Your task to perform on an android device: turn on javascript in the chrome app Image 0: 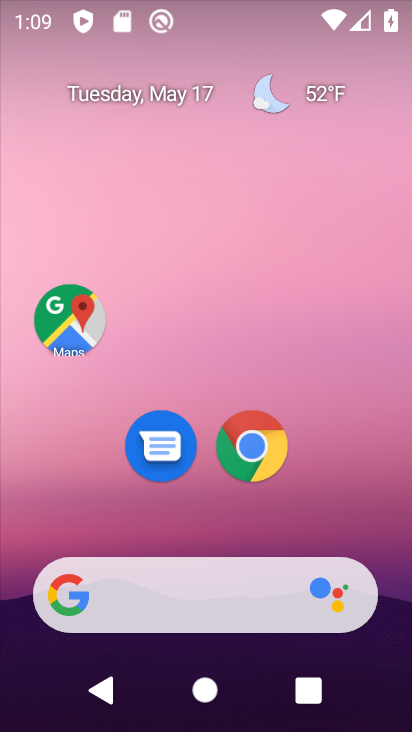
Step 0: drag from (379, 515) to (300, 151)
Your task to perform on an android device: turn on javascript in the chrome app Image 1: 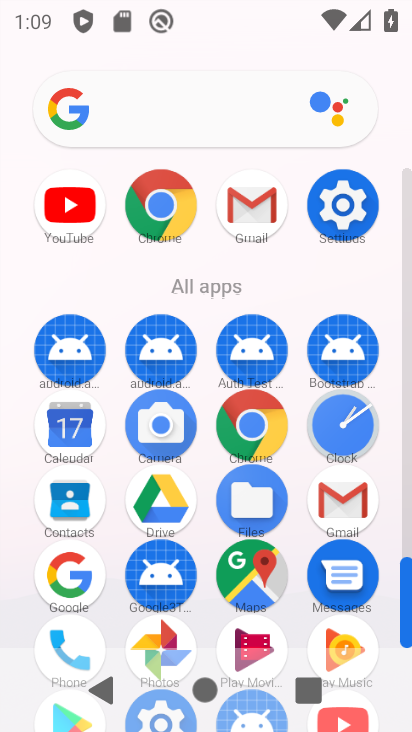
Step 1: click (170, 204)
Your task to perform on an android device: turn on javascript in the chrome app Image 2: 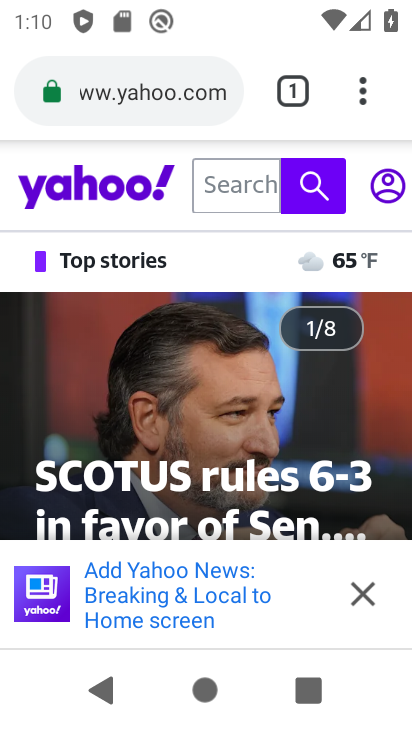
Step 2: click (369, 106)
Your task to perform on an android device: turn on javascript in the chrome app Image 3: 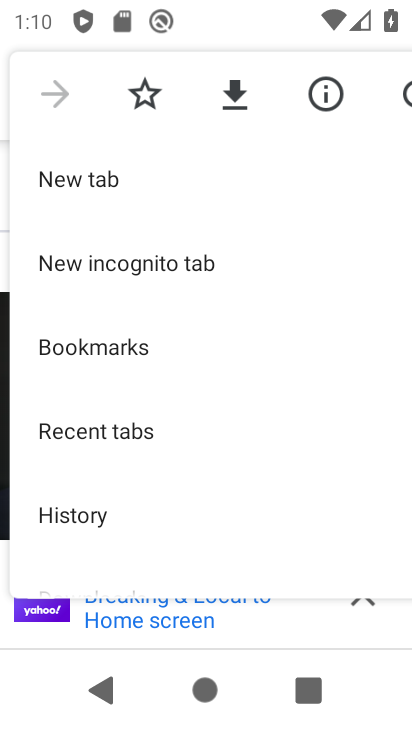
Step 3: drag from (241, 484) to (218, 236)
Your task to perform on an android device: turn on javascript in the chrome app Image 4: 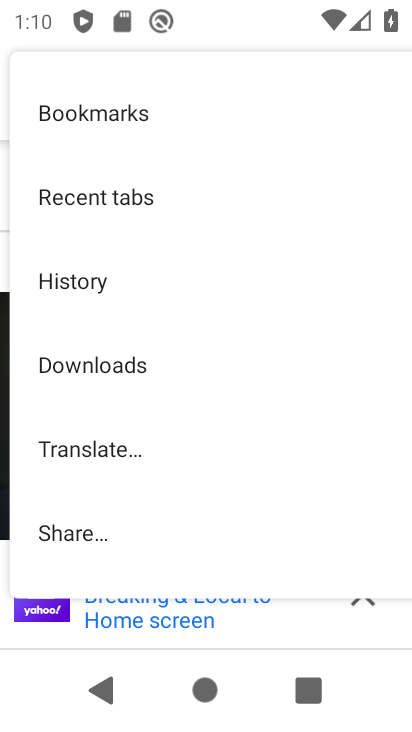
Step 4: drag from (158, 500) to (140, 241)
Your task to perform on an android device: turn on javascript in the chrome app Image 5: 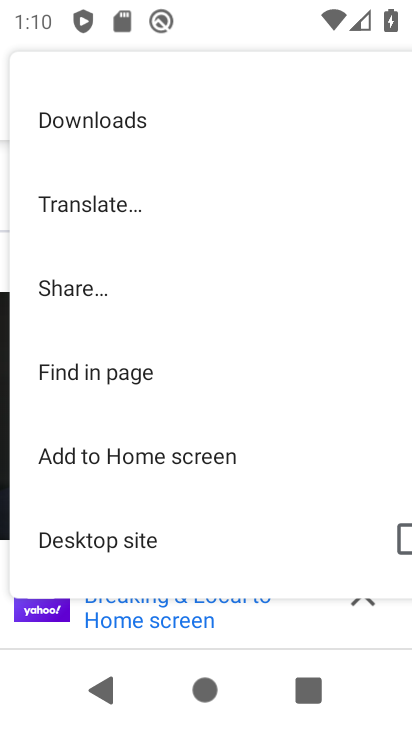
Step 5: drag from (166, 512) to (128, 184)
Your task to perform on an android device: turn on javascript in the chrome app Image 6: 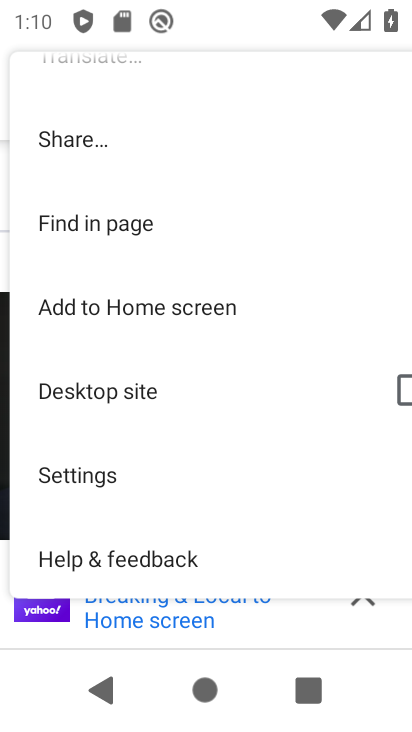
Step 6: click (118, 487)
Your task to perform on an android device: turn on javascript in the chrome app Image 7: 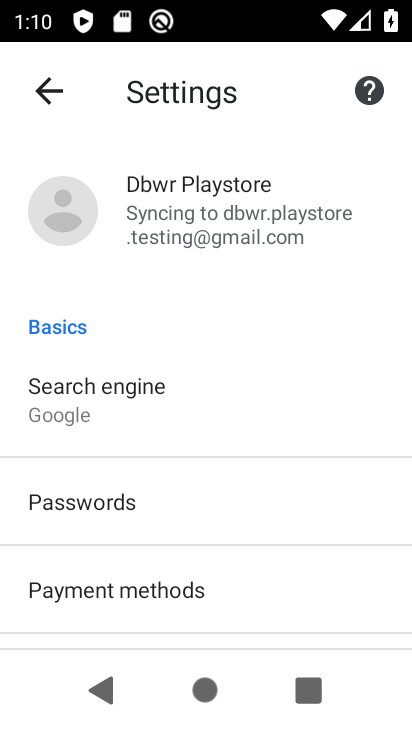
Step 7: drag from (245, 483) to (223, 217)
Your task to perform on an android device: turn on javascript in the chrome app Image 8: 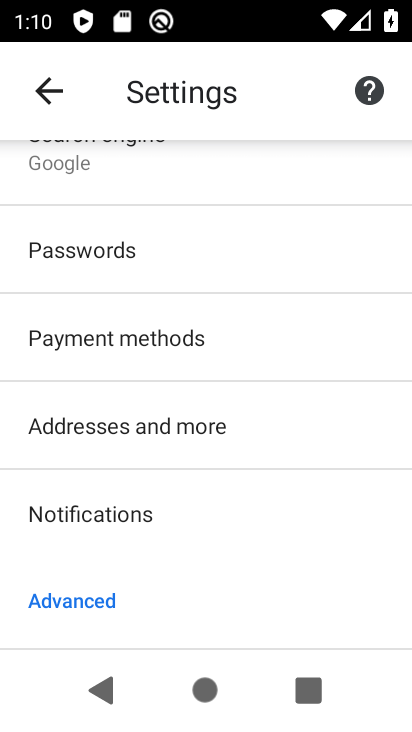
Step 8: drag from (237, 542) to (204, 238)
Your task to perform on an android device: turn on javascript in the chrome app Image 9: 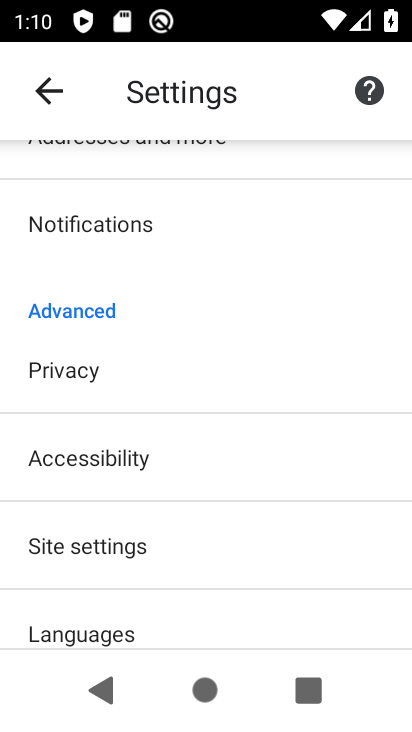
Step 9: click (200, 562)
Your task to perform on an android device: turn on javascript in the chrome app Image 10: 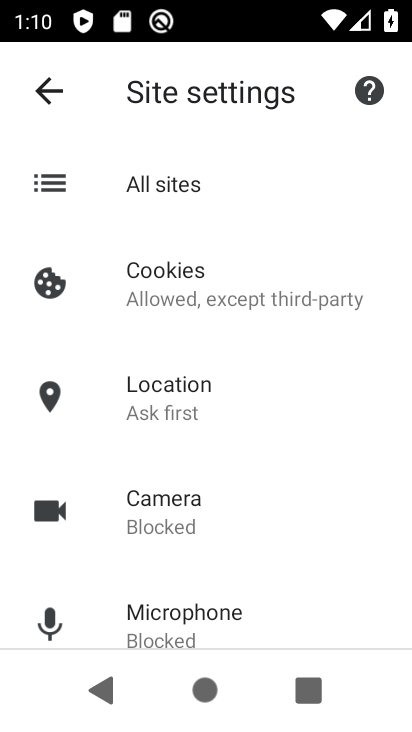
Step 10: drag from (196, 571) to (169, 301)
Your task to perform on an android device: turn on javascript in the chrome app Image 11: 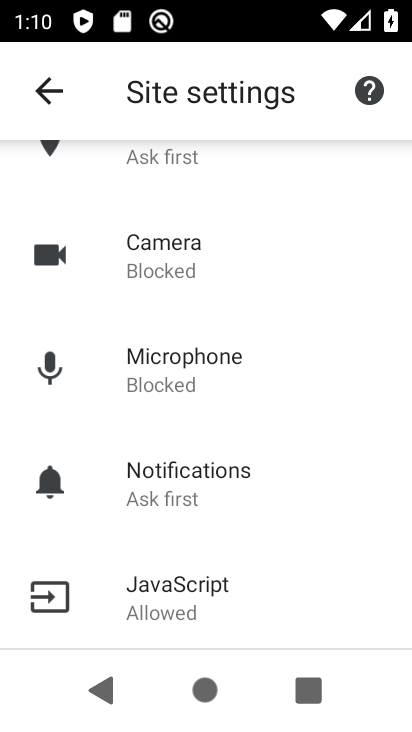
Step 11: click (207, 586)
Your task to perform on an android device: turn on javascript in the chrome app Image 12: 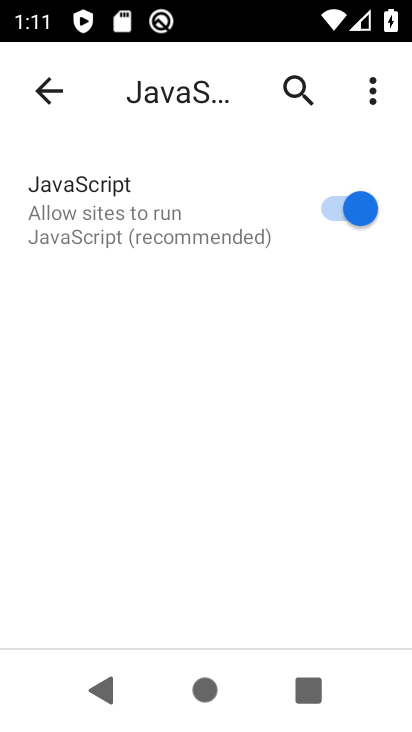
Step 12: task complete